Your task to perform on an android device: Go to display settings Image 0: 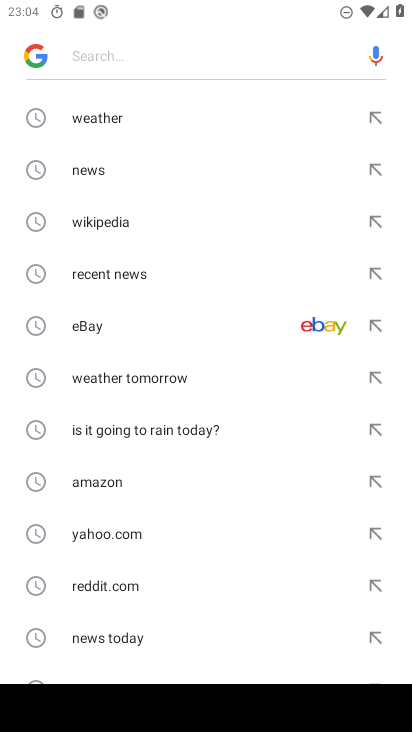
Step 0: press home button
Your task to perform on an android device: Go to display settings Image 1: 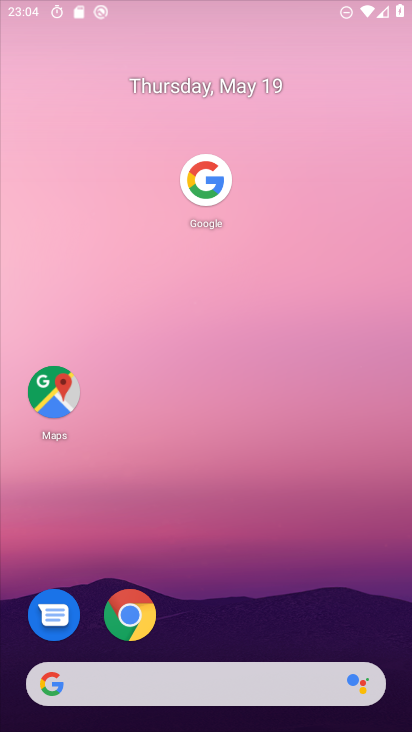
Step 1: drag from (230, 587) to (256, 20)
Your task to perform on an android device: Go to display settings Image 2: 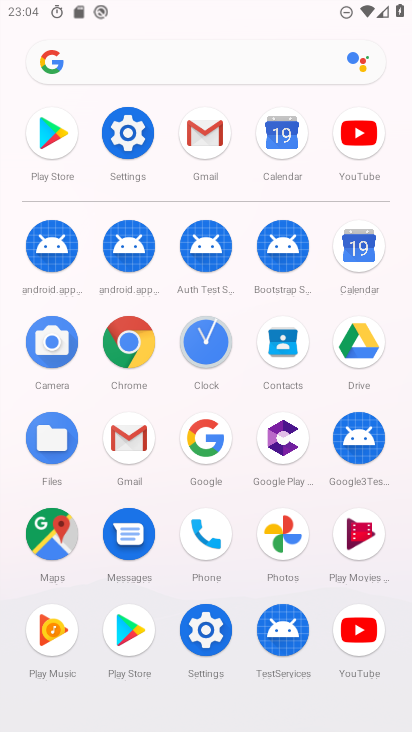
Step 2: click (134, 127)
Your task to perform on an android device: Go to display settings Image 3: 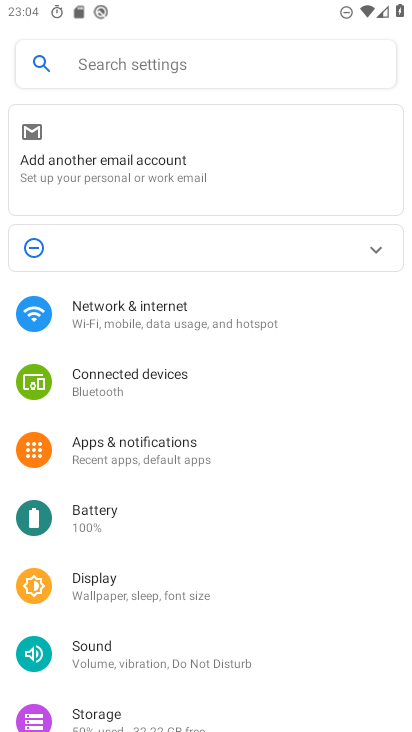
Step 3: click (139, 592)
Your task to perform on an android device: Go to display settings Image 4: 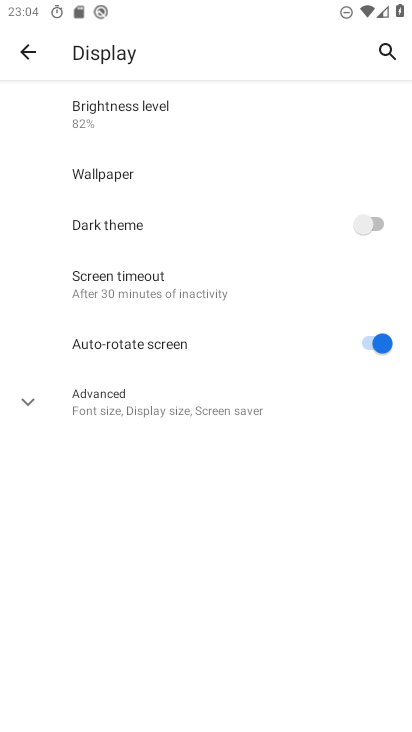
Step 4: task complete